Your task to perform on an android device: View the shopping cart on amazon.com. Add macbook pro to the cart on amazon.com Image 0: 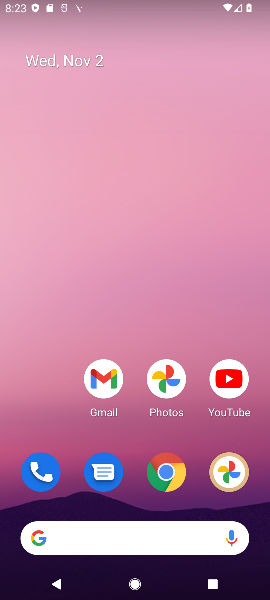
Step 0: click (41, 540)
Your task to perform on an android device: View the shopping cart on amazon.com. Add macbook pro to the cart on amazon.com Image 1: 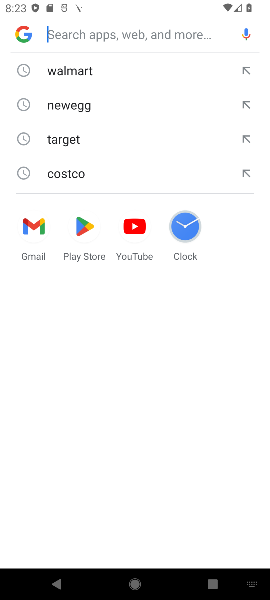
Step 1: type "amazon.com"
Your task to perform on an android device: View the shopping cart on amazon.com. Add macbook pro to the cart on amazon.com Image 2: 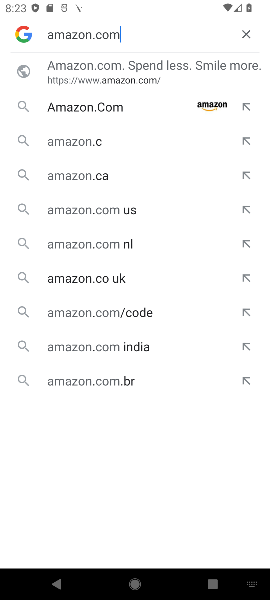
Step 2: click (138, 70)
Your task to perform on an android device: View the shopping cart on amazon.com. Add macbook pro to the cart on amazon.com Image 3: 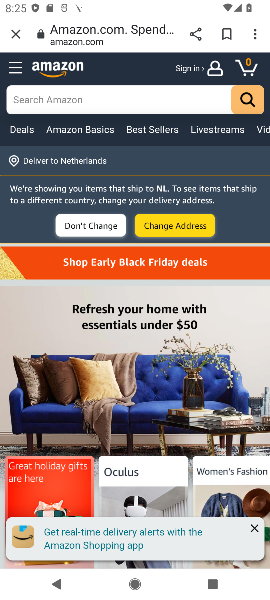
Step 3: click (134, 99)
Your task to perform on an android device: View the shopping cart on amazon.com. Add macbook pro to the cart on amazon.com Image 4: 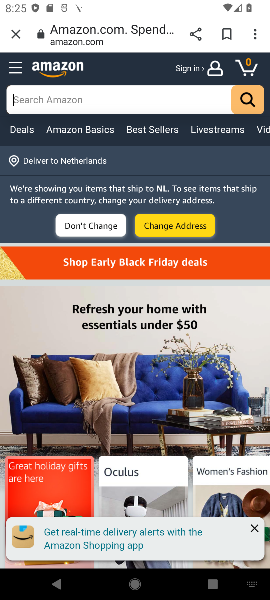
Step 4: type "macbook pro"
Your task to perform on an android device: View the shopping cart on amazon.com. Add macbook pro to the cart on amazon.com Image 5: 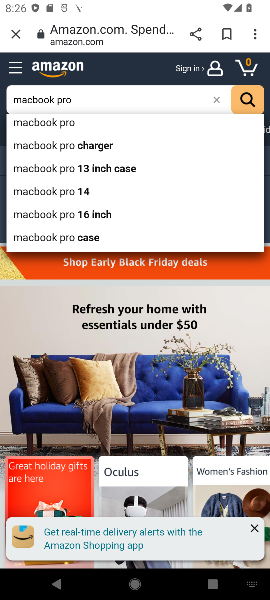
Step 5: click (41, 122)
Your task to perform on an android device: View the shopping cart on amazon.com. Add macbook pro to the cart on amazon.com Image 6: 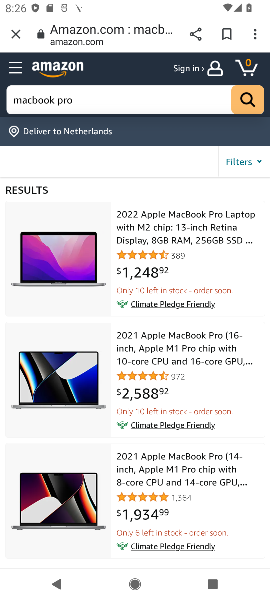
Step 6: click (196, 220)
Your task to perform on an android device: View the shopping cart on amazon.com. Add macbook pro to the cart on amazon.com Image 7: 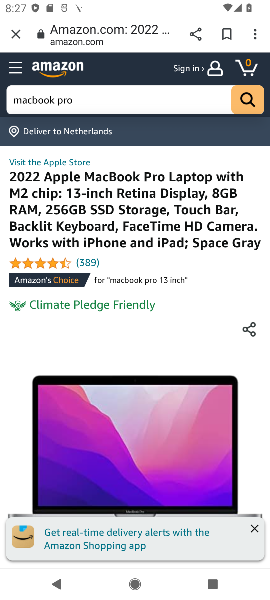
Step 7: drag from (173, 395) to (152, 203)
Your task to perform on an android device: View the shopping cart on amazon.com. Add macbook pro to the cart on amazon.com Image 8: 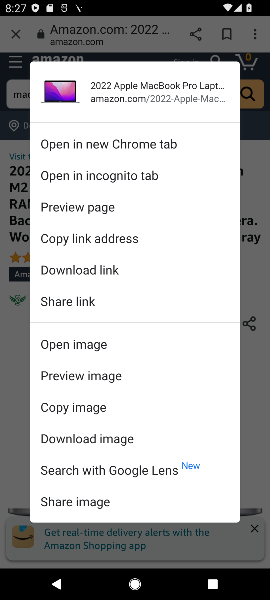
Step 8: click (260, 174)
Your task to perform on an android device: View the shopping cart on amazon.com. Add macbook pro to the cart on amazon.com Image 9: 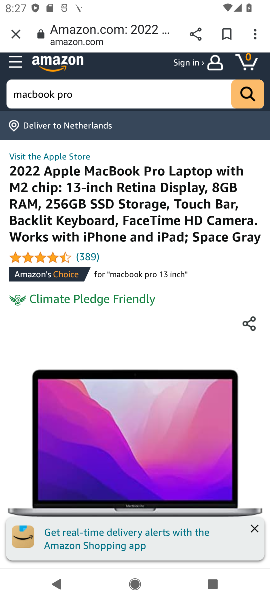
Step 9: task complete